Your task to perform on an android device: Go to Maps Image 0: 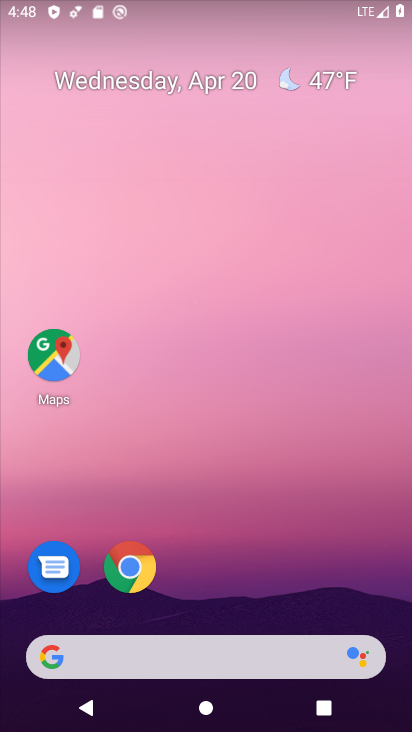
Step 0: drag from (276, 557) to (188, 43)
Your task to perform on an android device: Go to Maps Image 1: 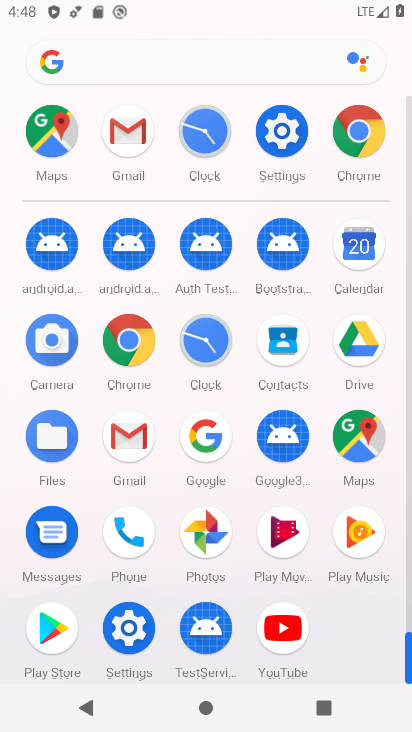
Step 1: click (49, 128)
Your task to perform on an android device: Go to Maps Image 2: 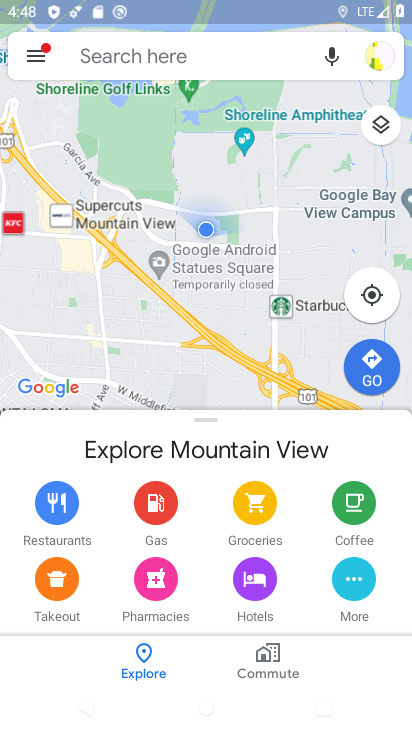
Step 2: task complete